Your task to perform on an android device: Open Google Chrome and click the shortcut for Amazon.com Image 0: 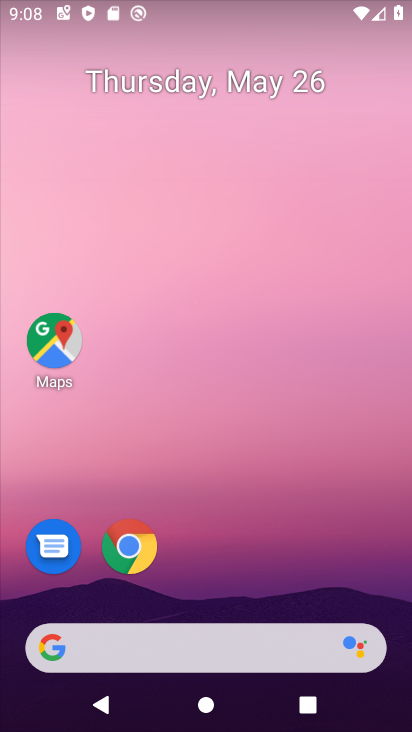
Step 0: drag from (266, 560) to (223, 225)
Your task to perform on an android device: Open Google Chrome and click the shortcut for Amazon.com Image 1: 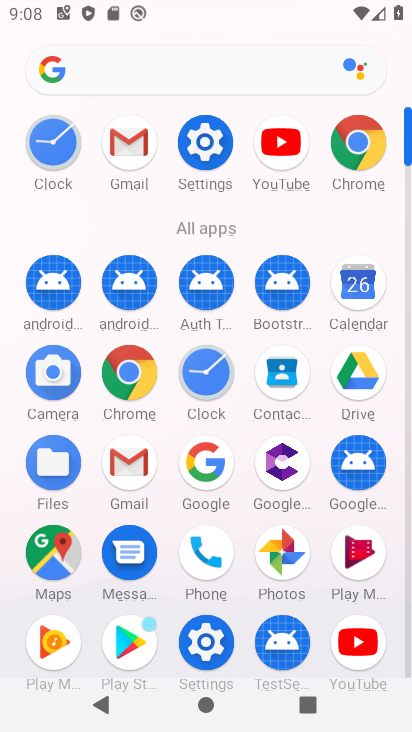
Step 1: click (353, 158)
Your task to perform on an android device: Open Google Chrome and click the shortcut for Amazon.com Image 2: 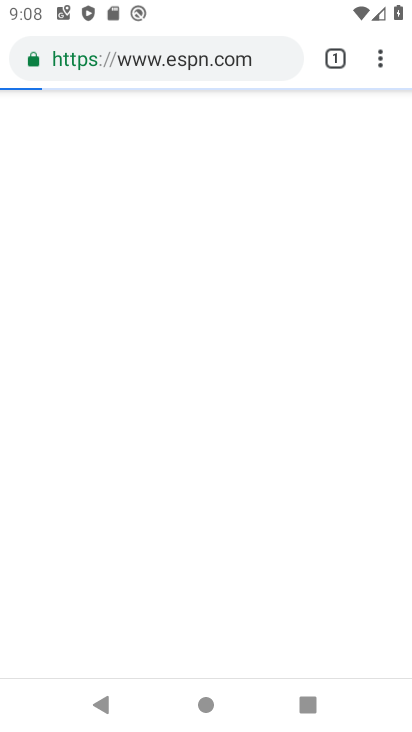
Step 2: click (328, 66)
Your task to perform on an android device: Open Google Chrome and click the shortcut for Amazon.com Image 3: 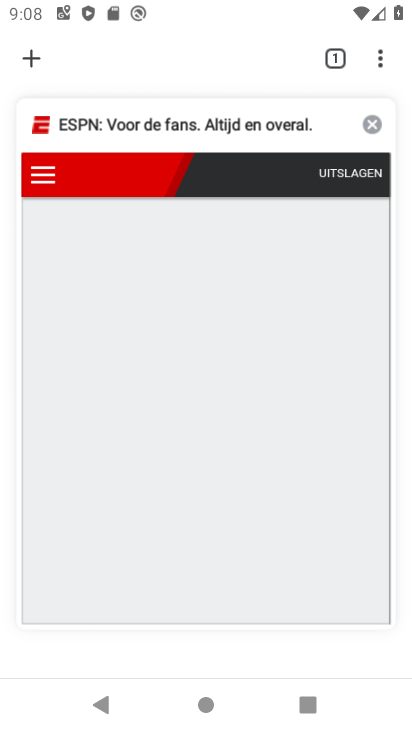
Step 3: click (26, 61)
Your task to perform on an android device: Open Google Chrome and click the shortcut for Amazon.com Image 4: 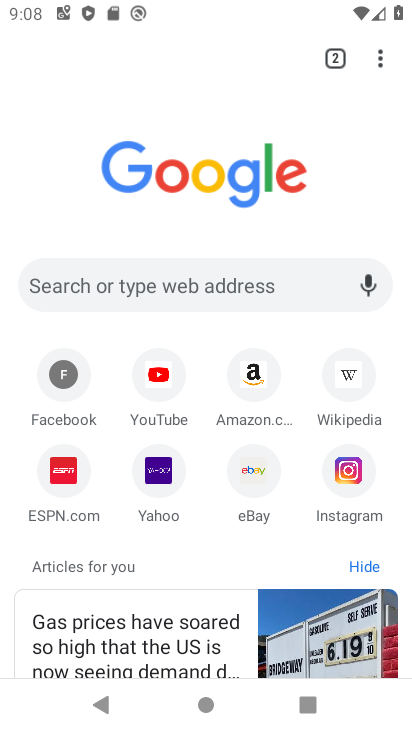
Step 4: click (275, 392)
Your task to perform on an android device: Open Google Chrome and click the shortcut for Amazon.com Image 5: 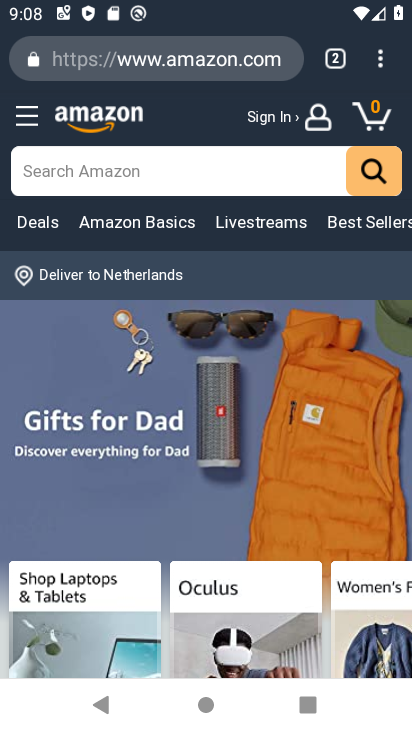
Step 5: task complete